Your task to perform on an android device: turn off picture-in-picture Image 0: 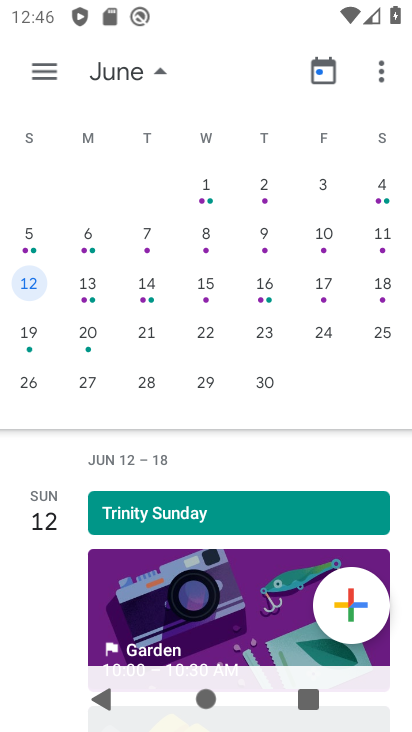
Step 0: press home button
Your task to perform on an android device: turn off picture-in-picture Image 1: 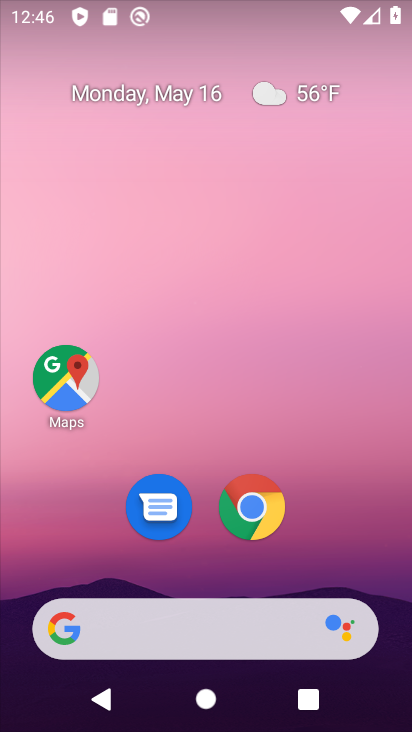
Step 1: click (225, 507)
Your task to perform on an android device: turn off picture-in-picture Image 2: 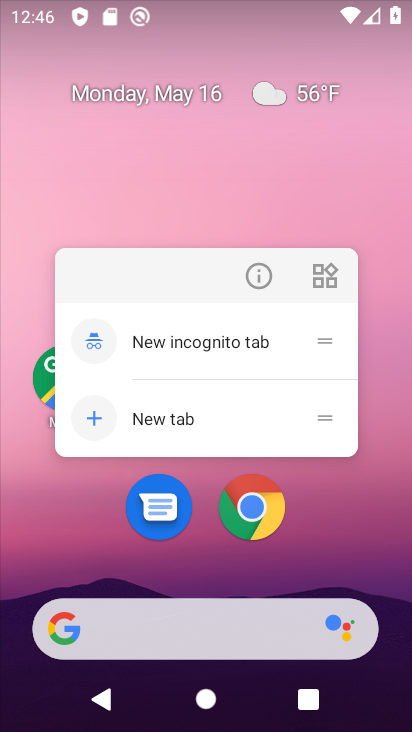
Step 2: click (257, 269)
Your task to perform on an android device: turn off picture-in-picture Image 3: 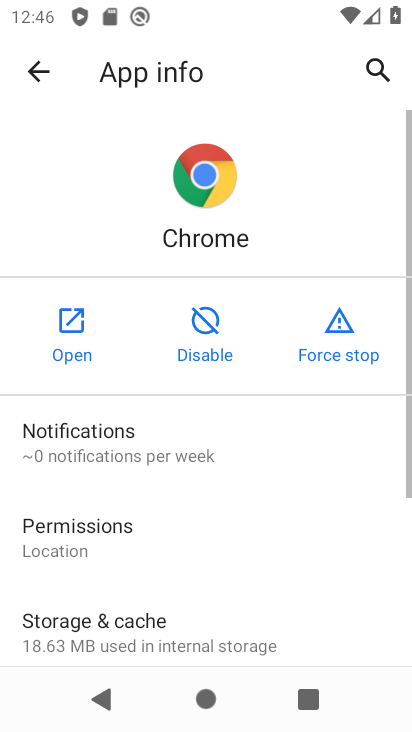
Step 3: drag from (218, 608) to (280, 215)
Your task to perform on an android device: turn off picture-in-picture Image 4: 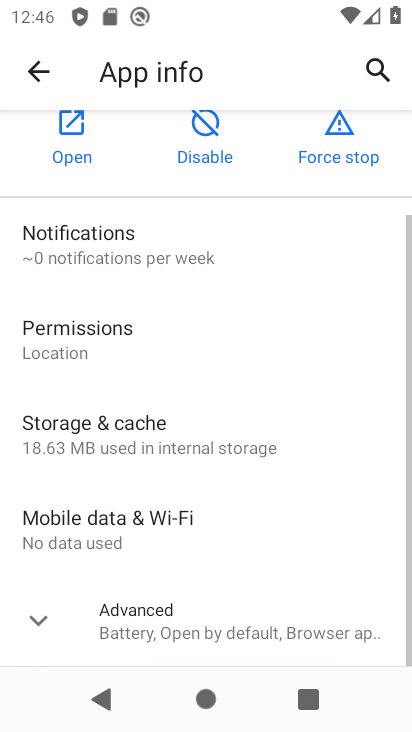
Step 4: click (176, 613)
Your task to perform on an android device: turn off picture-in-picture Image 5: 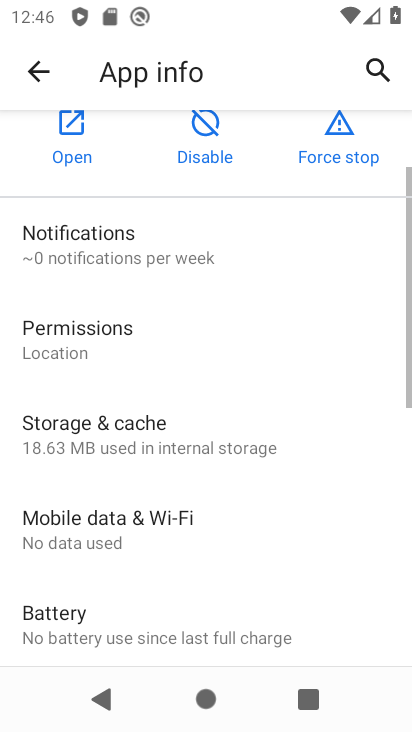
Step 5: drag from (152, 615) to (219, 231)
Your task to perform on an android device: turn off picture-in-picture Image 6: 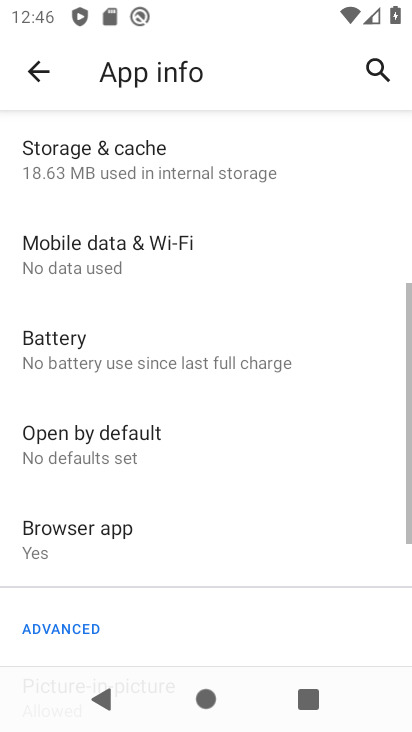
Step 6: drag from (153, 583) to (203, 340)
Your task to perform on an android device: turn off picture-in-picture Image 7: 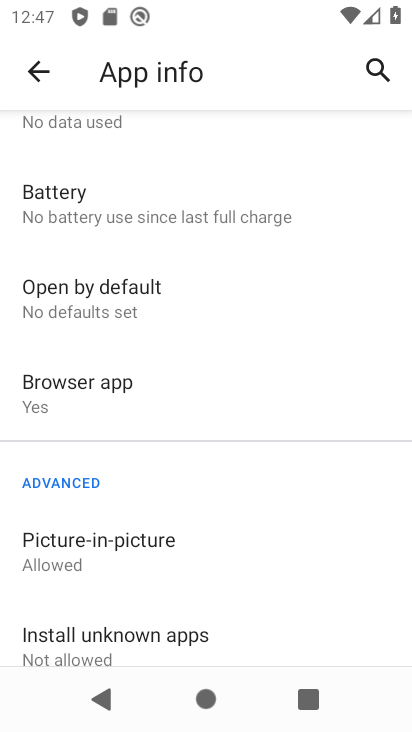
Step 7: click (106, 562)
Your task to perform on an android device: turn off picture-in-picture Image 8: 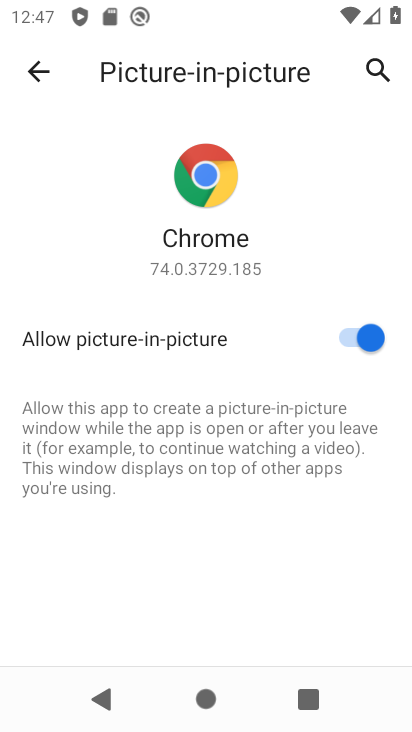
Step 8: click (347, 335)
Your task to perform on an android device: turn off picture-in-picture Image 9: 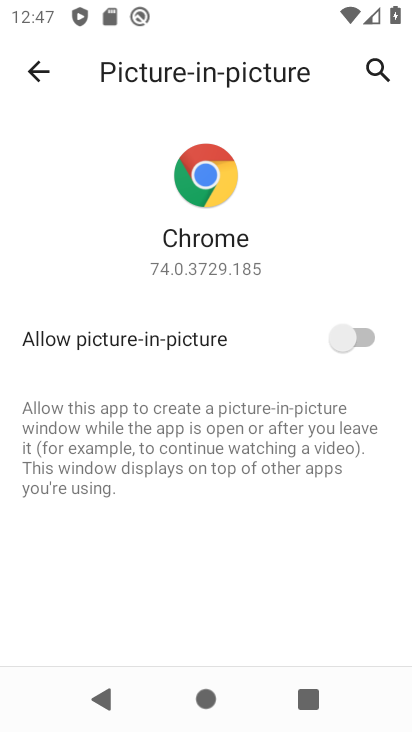
Step 9: task complete